Your task to perform on an android device: visit the assistant section in the google photos Image 0: 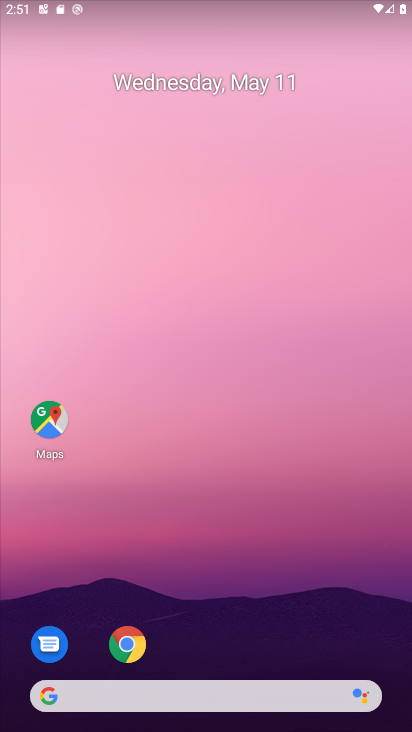
Step 0: drag from (211, 675) to (178, 15)
Your task to perform on an android device: visit the assistant section in the google photos Image 1: 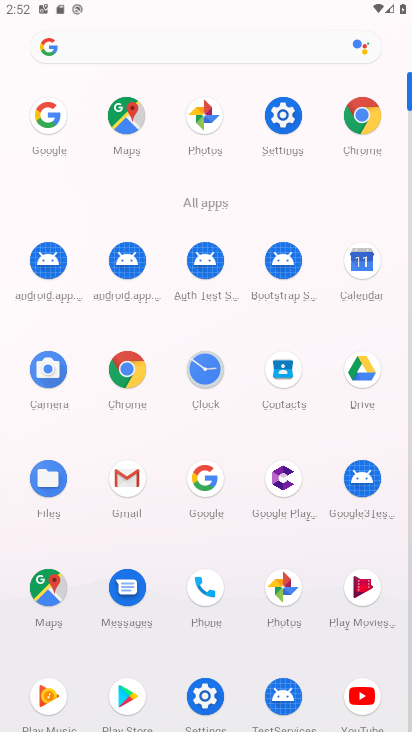
Step 1: click (296, 586)
Your task to perform on an android device: visit the assistant section in the google photos Image 2: 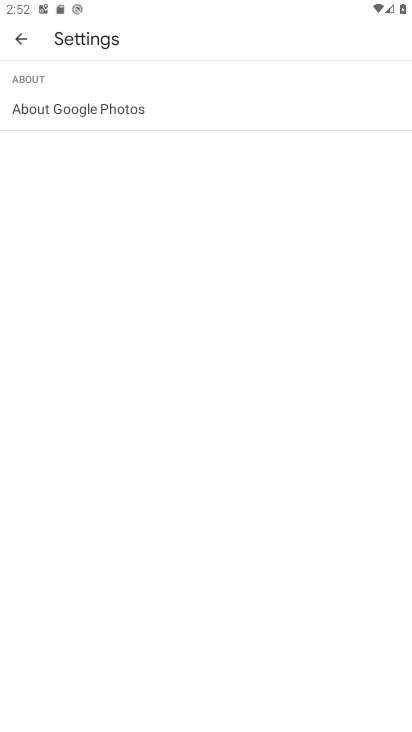
Step 2: click (16, 31)
Your task to perform on an android device: visit the assistant section in the google photos Image 3: 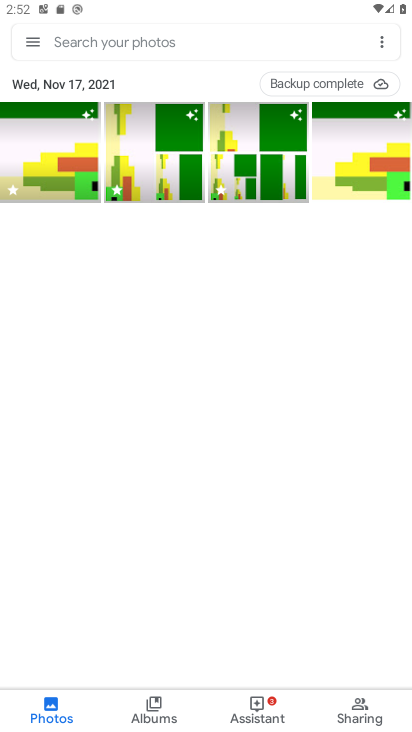
Step 3: click (264, 703)
Your task to perform on an android device: visit the assistant section in the google photos Image 4: 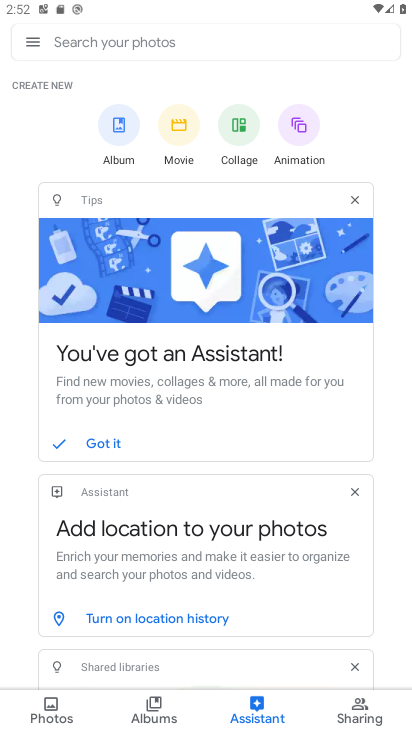
Step 4: task complete